Your task to perform on an android device: star an email in the gmail app Image 0: 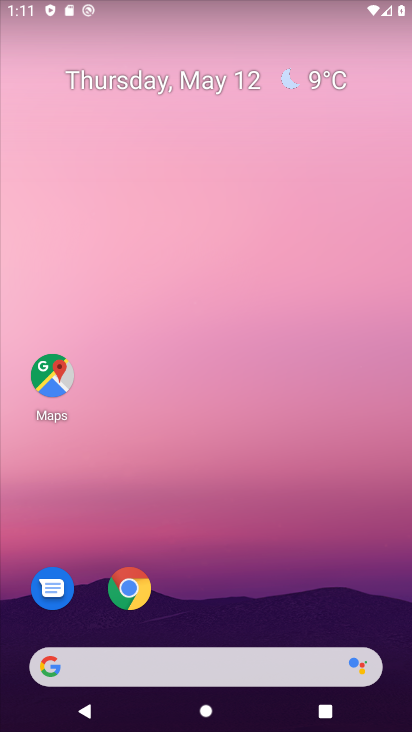
Step 0: drag from (370, 632) to (269, 49)
Your task to perform on an android device: star an email in the gmail app Image 1: 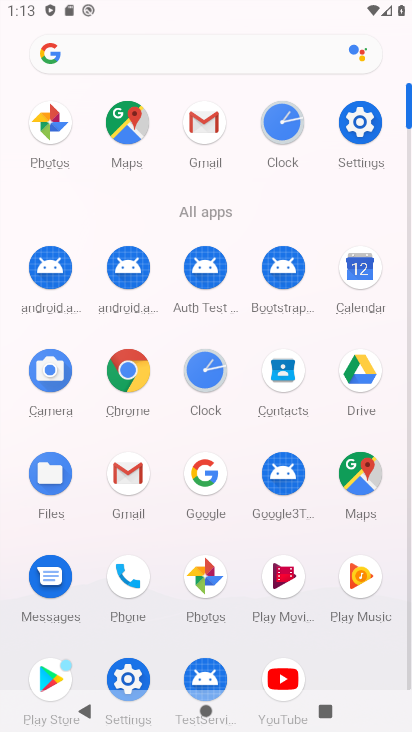
Step 1: click (129, 481)
Your task to perform on an android device: star an email in the gmail app Image 2: 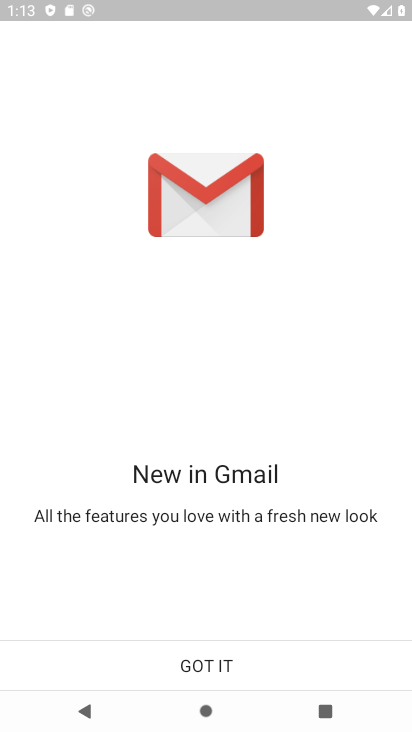
Step 2: click (143, 654)
Your task to perform on an android device: star an email in the gmail app Image 3: 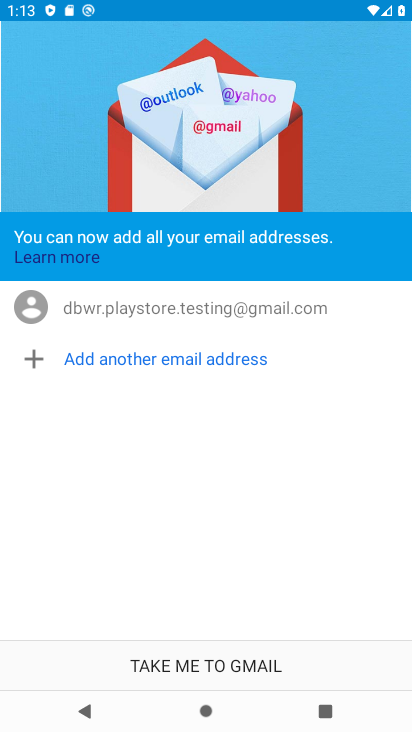
Step 3: click (143, 654)
Your task to perform on an android device: star an email in the gmail app Image 4: 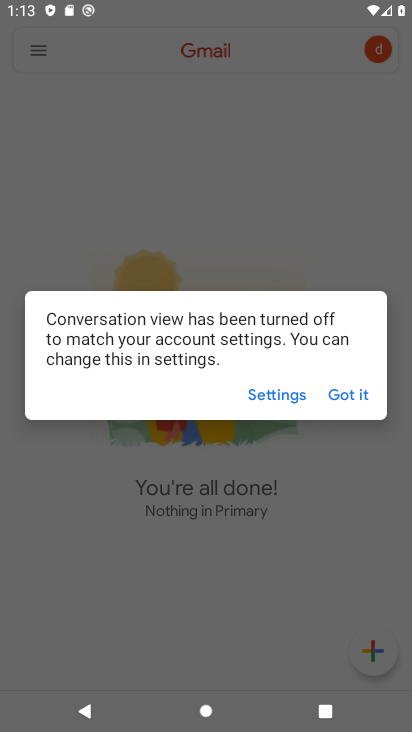
Step 4: click (336, 387)
Your task to perform on an android device: star an email in the gmail app Image 5: 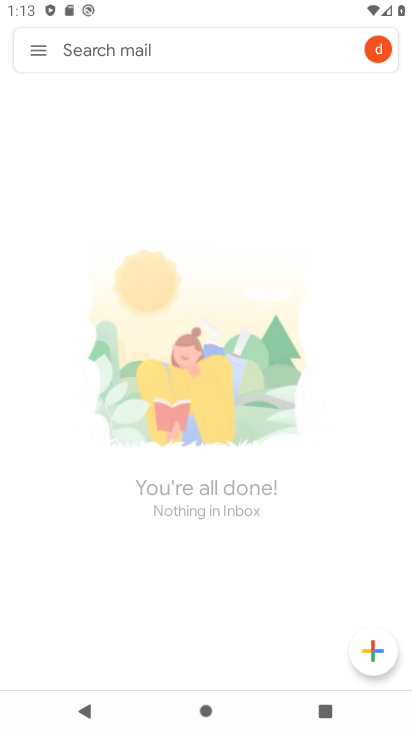
Step 5: task complete